Your task to perform on an android device: delete a single message in the gmail app Image 0: 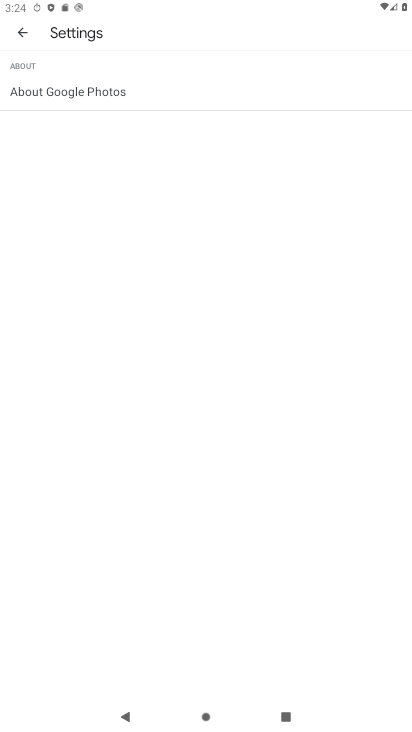
Step 0: press home button
Your task to perform on an android device: delete a single message in the gmail app Image 1: 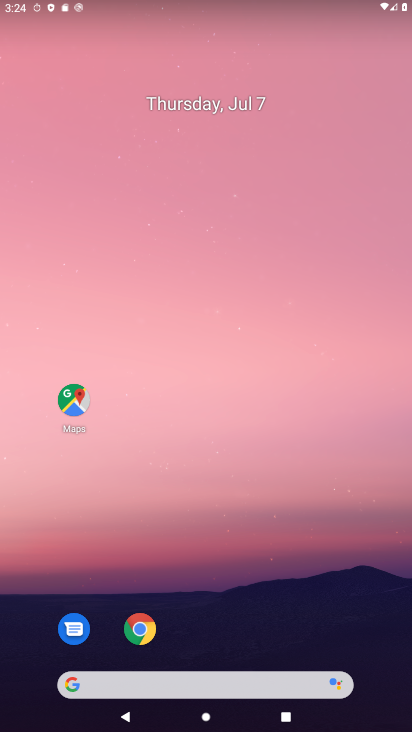
Step 1: drag from (193, 514) to (199, 103)
Your task to perform on an android device: delete a single message in the gmail app Image 2: 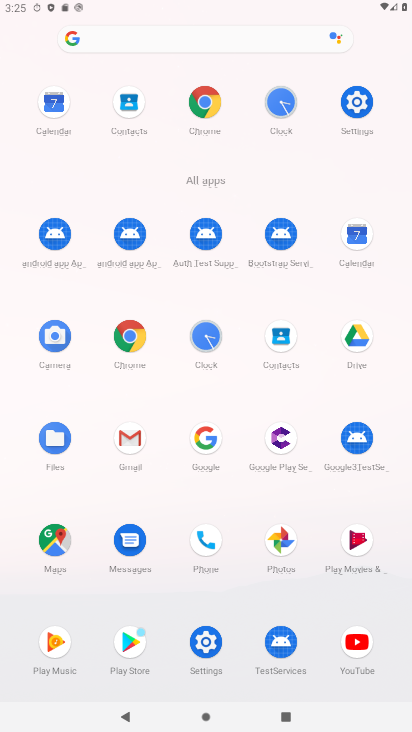
Step 2: click (123, 449)
Your task to perform on an android device: delete a single message in the gmail app Image 3: 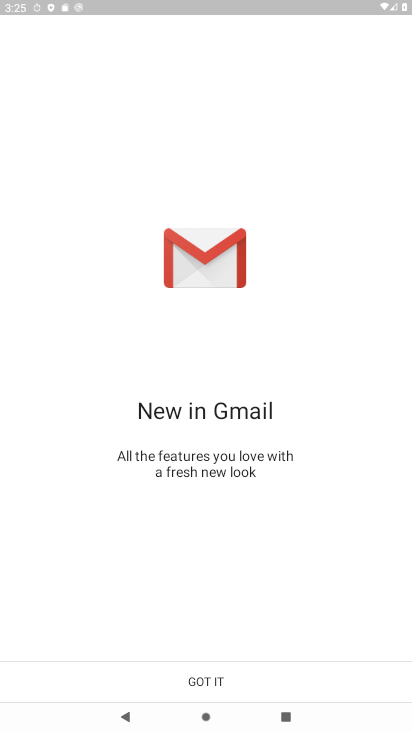
Step 3: click (200, 682)
Your task to perform on an android device: delete a single message in the gmail app Image 4: 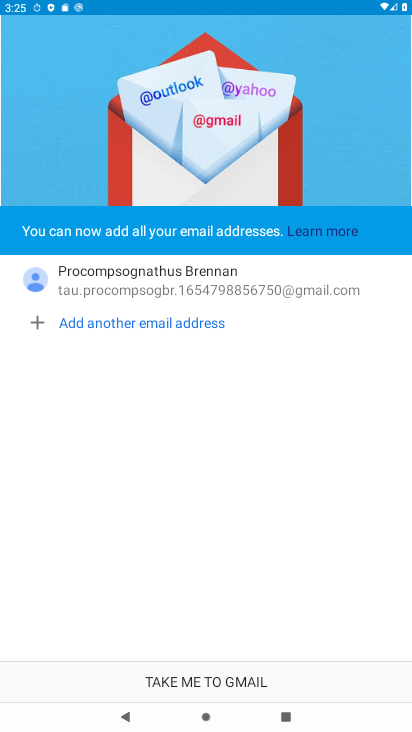
Step 4: click (200, 682)
Your task to perform on an android device: delete a single message in the gmail app Image 5: 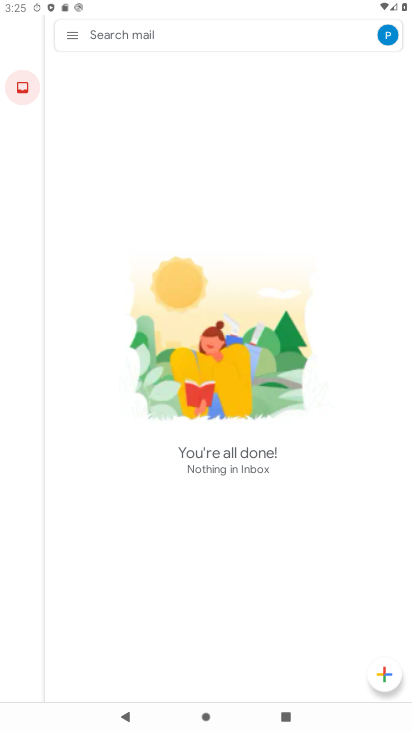
Step 5: click (68, 39)
Your task to perform on an android device: delete a single message in the gmail app Image 6: 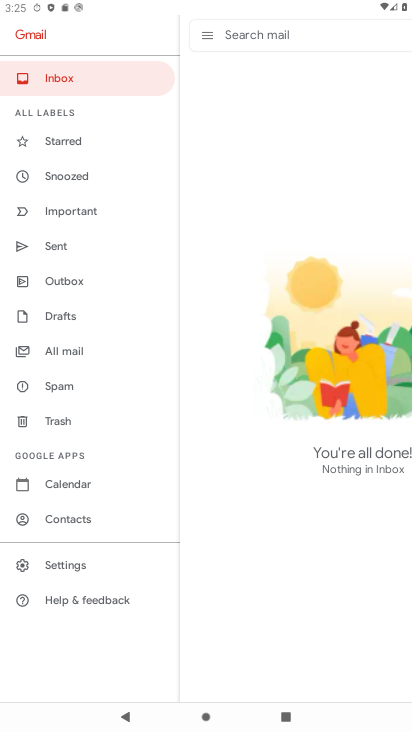
Step 6: click (62, 354)
Your task to perform on an android device: delete a single message in the gmail app Image 7: 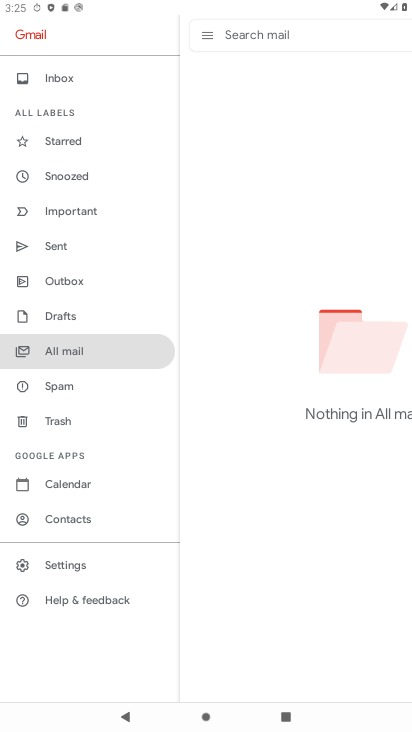
Step 7: click (62, 354)
Your task to perform on an android device: delete a single message in the gmail app Image 8: 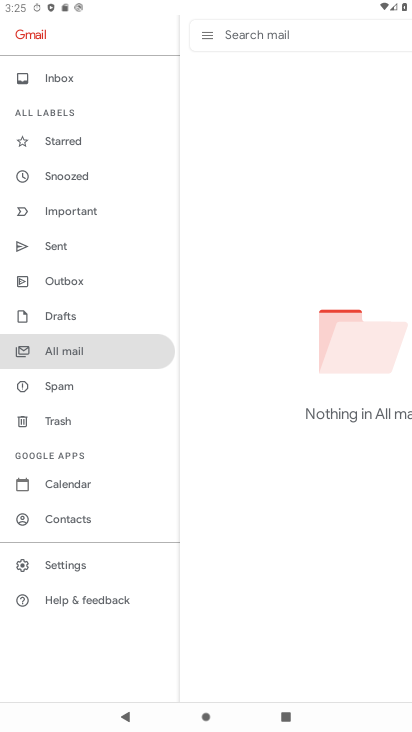
Step 8: task complete